Your task to perform on an android device: uninstall "VLC for Android" Image 0: 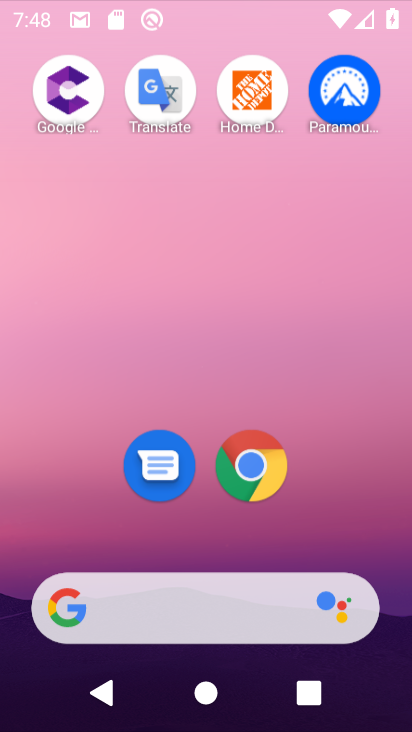
Step 0: click (401, 295)
Your task to perform on an android device: uninstall "VLC for Android" Image 1: 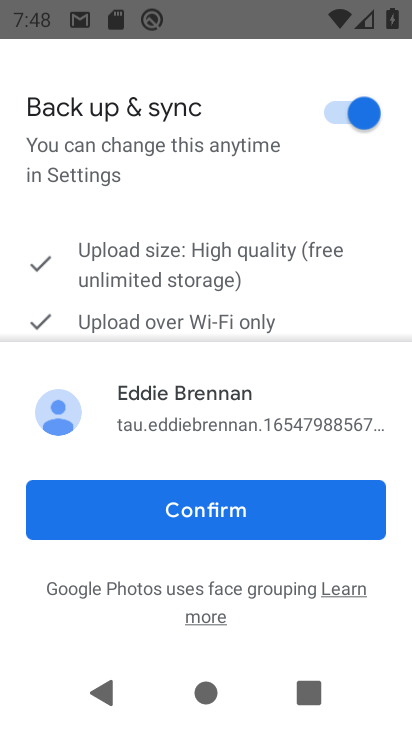
Step 1: press home button
Your task to perform on an android device: uninstall "VLC for Android" Image 2: 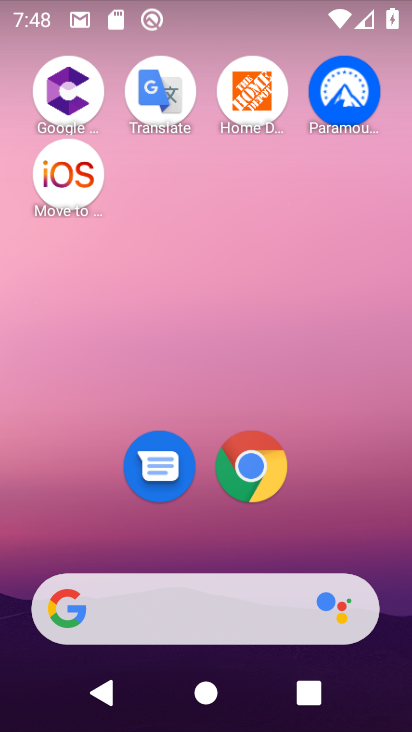
Step 2: drag from (211, 529) to (225, 2)
Your task to perform on an android device: uninstall "VLC for Android" Image 3: 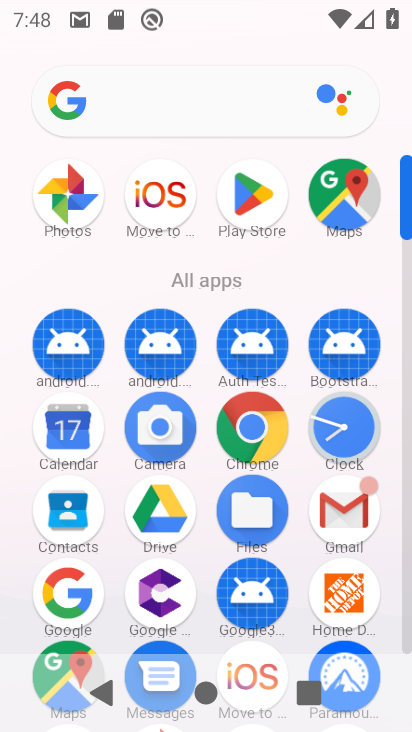
Step 3: click (250, 198)
Your task to perform on an android device: uninstall "VLC for Android" Image 4: 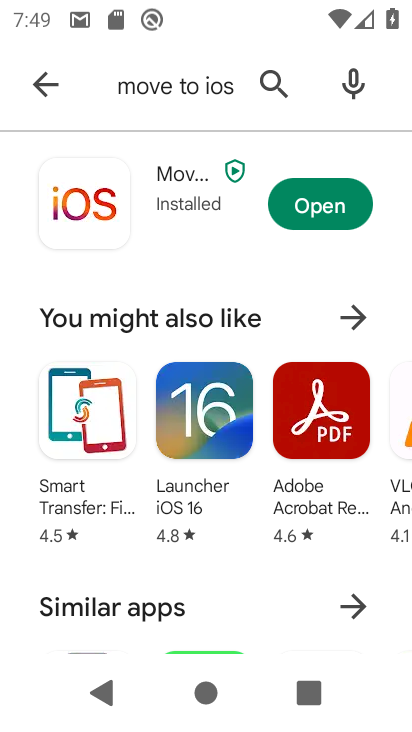
Step 4: click (185, 87)
Your task to perform on an android device: uninstall "VLC for Android" Image 5: 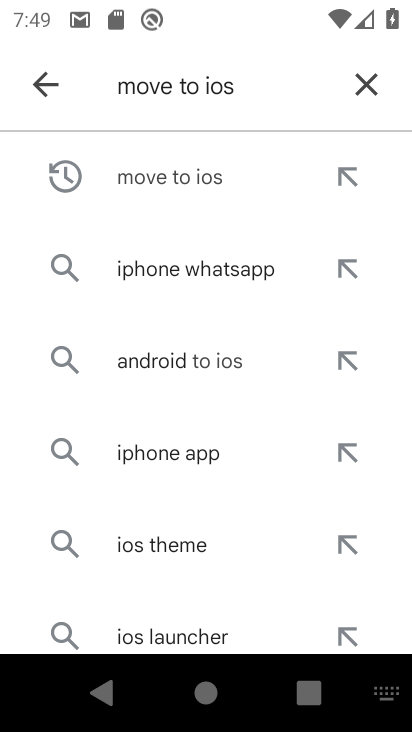
Step 5: click (376, 85)
Your task to perform on an android device: uninstall "VLC for Android" Image 6: 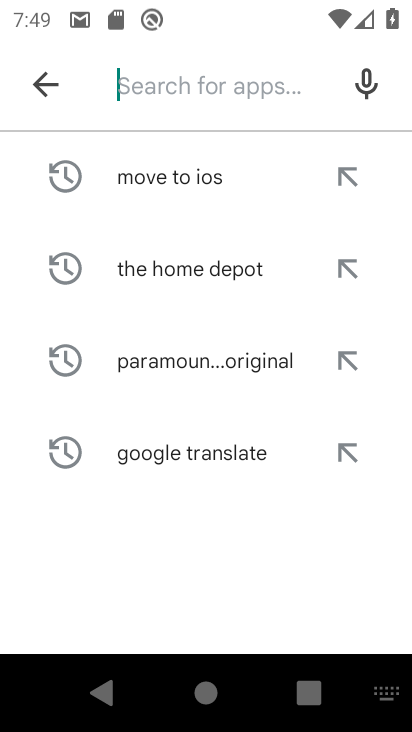
Step 6: type "VLC"
Your task to perform on an android device: uninstall "VLC for Android" Image 7: 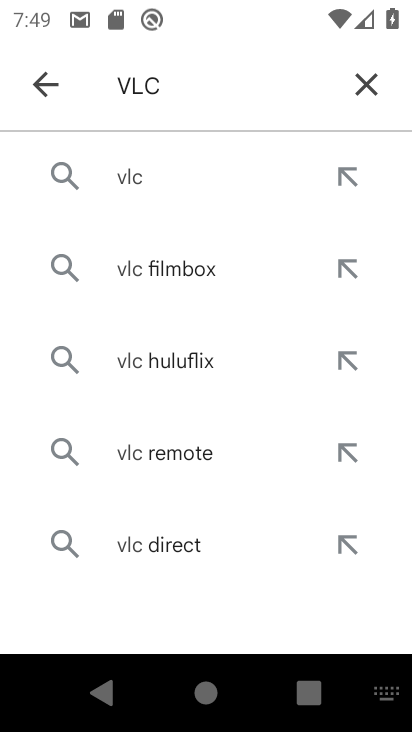
Step 7: click (128, 173)
Your task to perform on an android device: uninstall "VLC for Android" Image 8: 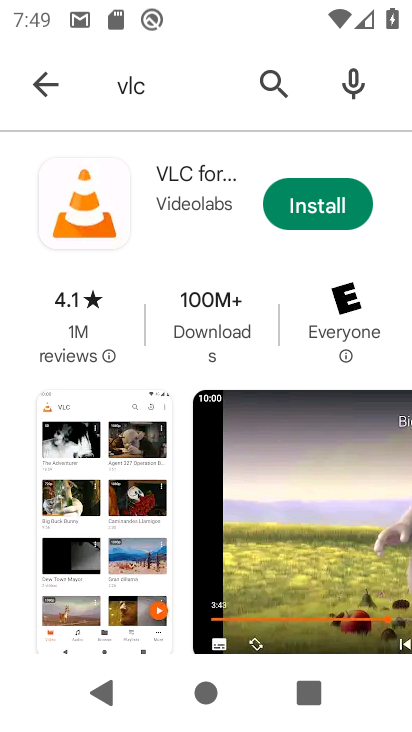
Step 8: task complete